Your task to perform on an android device: Open settings on Google Maps Image 0: 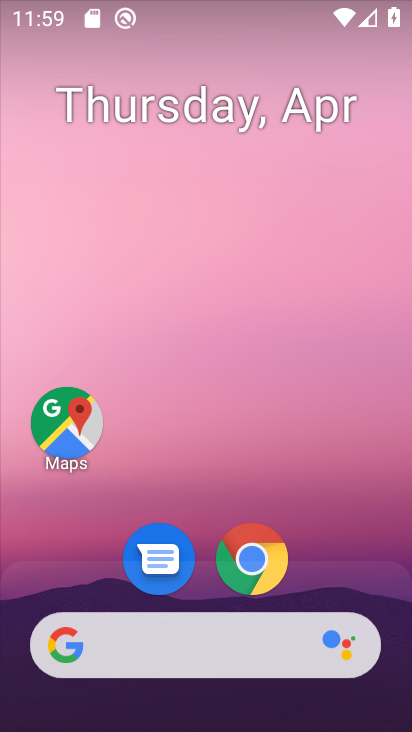
Step 0: drag from (341, 587) to (360, 116)
Your task to perform on an android device: Open settings on Google Maps Image 1: 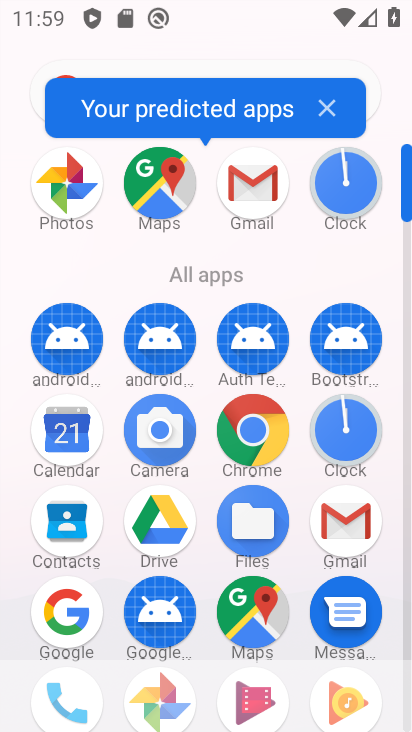
Step 1: drag from (396, 547) to (394, 344)
Your task to perform on an android device: Open settings on Google Maps Image 2: 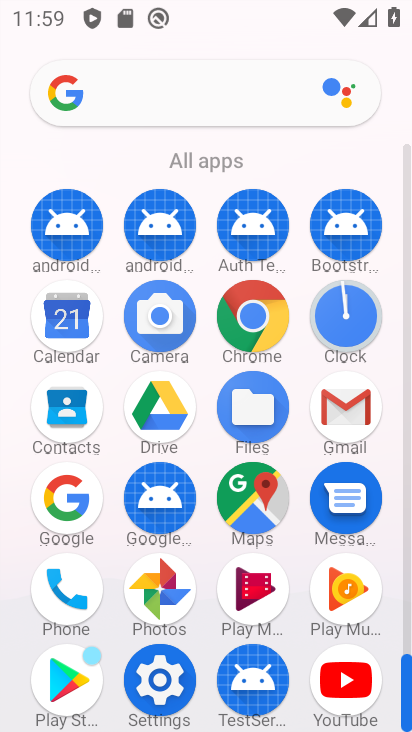
Step 2: click (253, 497)
Your task to perform on an android device: Open settings on Google Maps Image 3: 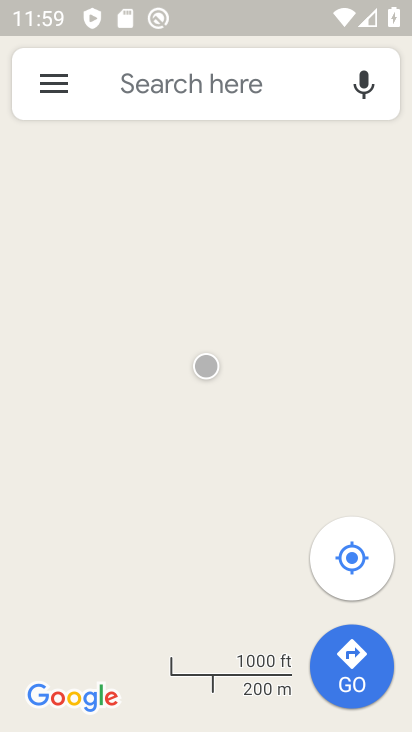
Step 3: click (63, 90)
Your task to perform on an android device: Open settings on Google Maps Image 4: 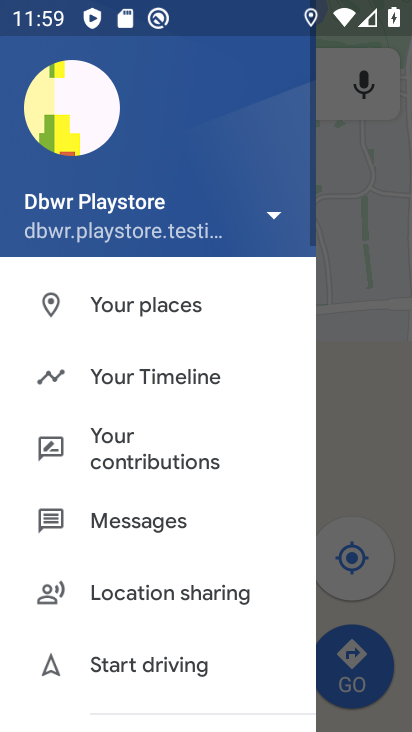
Step 4: drag from (236, 601) to (249, 385)
Your task to perform on an android device: Open settings on Google Maps Image 5: 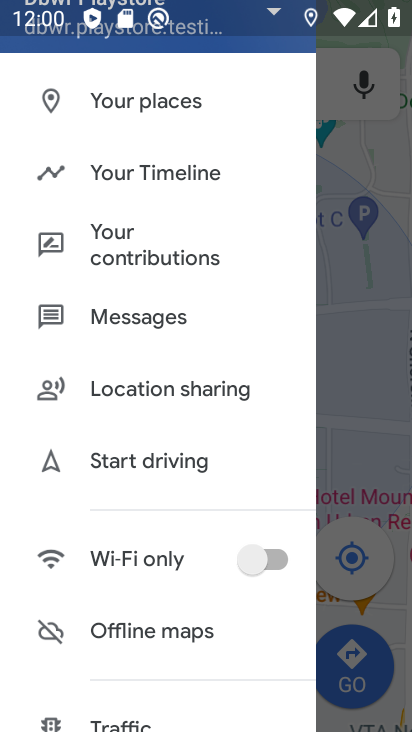
Step 5: drag from (213, 589) to (214, 432)
Your task to perform on an android device: Open settings on Google Maps Image 6: 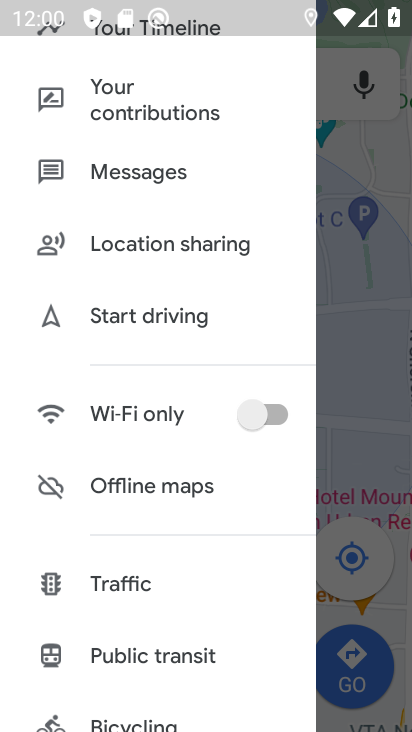
Step 6: drag from (230, 601) to (203, 336)
Your task to perform on an android device: Open settings on Google Maps Image 7: 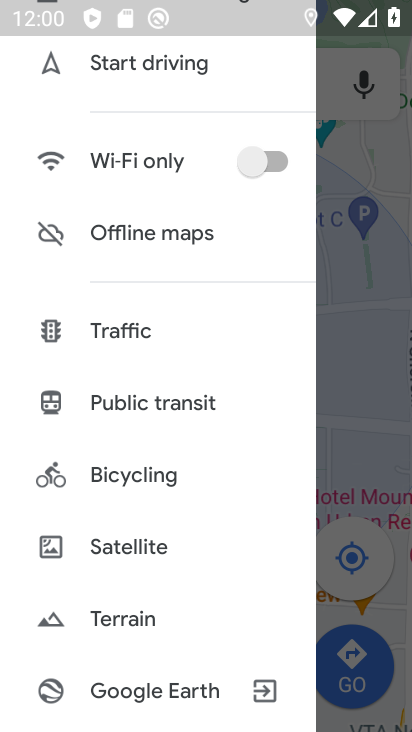
Step 7: drag from (193, 620) to (215, 277)
Your task to perform on an android device: Open settings on Google Maps Image 8: 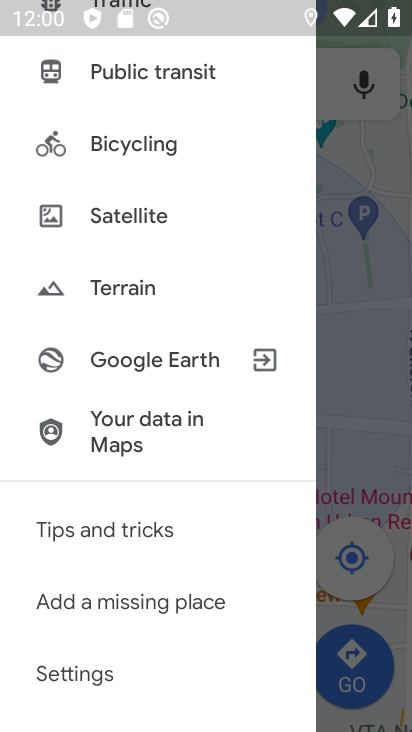
Step 8: drag from (211, 644) to (221, 471)
Your task to perform on an android device: Open settings on Google Maps Image 9: 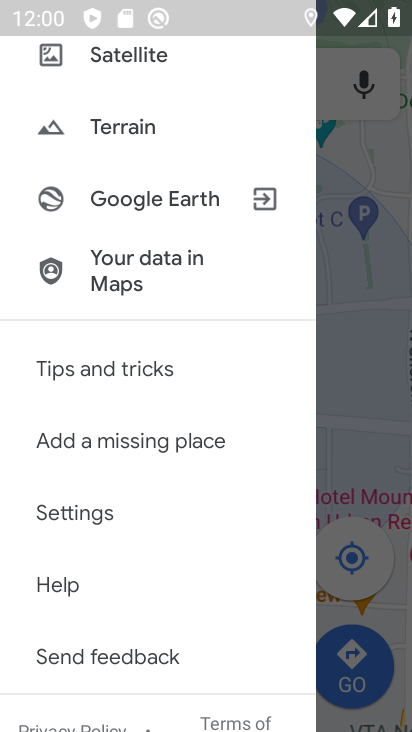
Step 9: click (82, 514)
Your task to perform on an android device: Open settings on Google Maps Image 10: 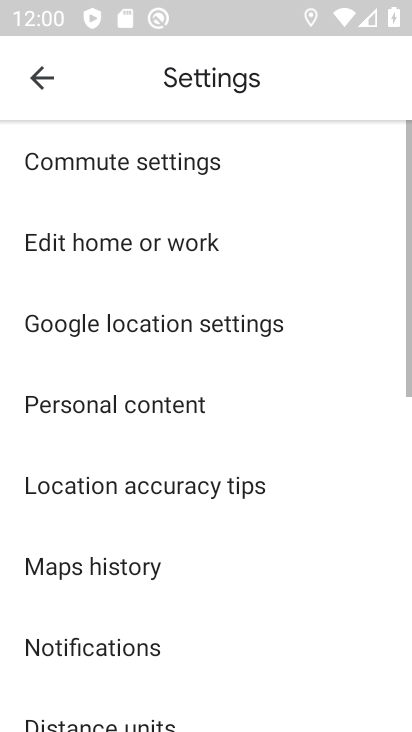
Step 10: task complete